Your task to perform on an android device: Go to sound settings Image 0: 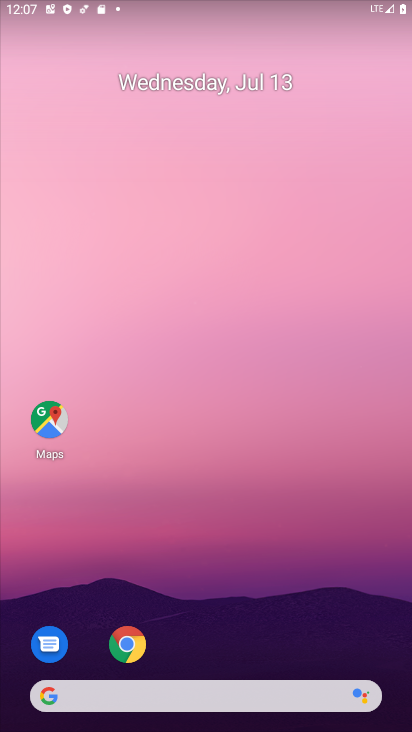
Step 0: drag from (222, 642) to (260, 133)
Your task to perform on an android device: Go to sound settings Image 1: 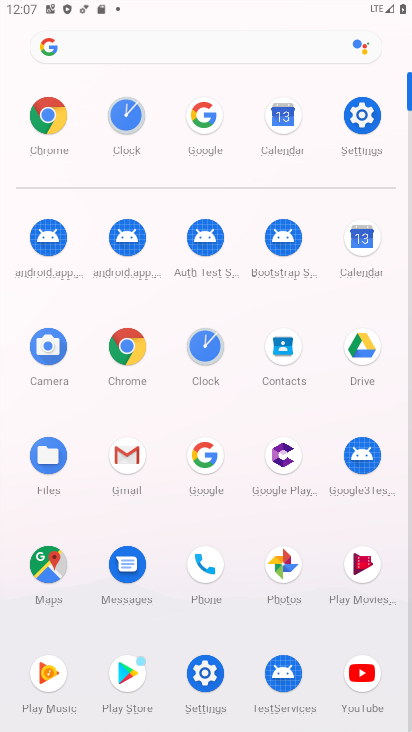
Step 1: click (365, 116)
Your task to perform on an android device: Go to sound settings Image 2: 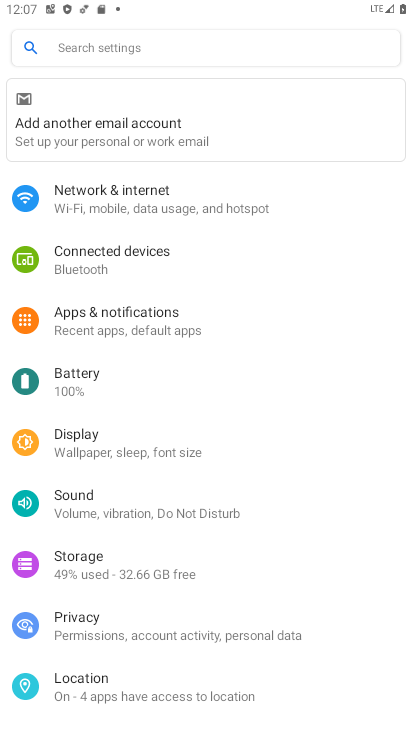
Step 2: click (109, 492)
Your task to perform on an android device: Go to sound settings Image 3: 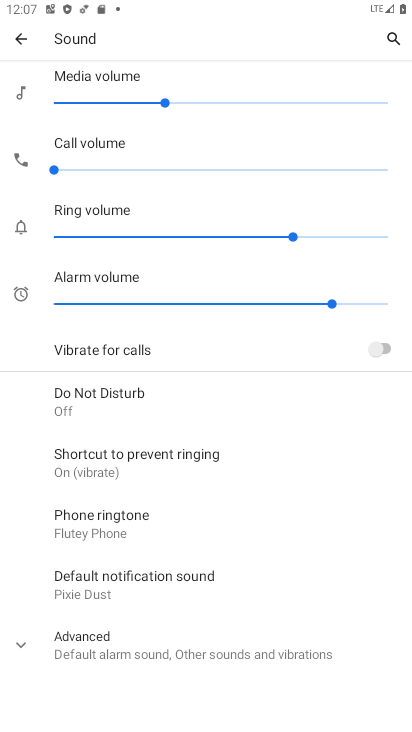
Step 3: task complete